Your task to perform on an android device: turn off sleep mode Image 0: 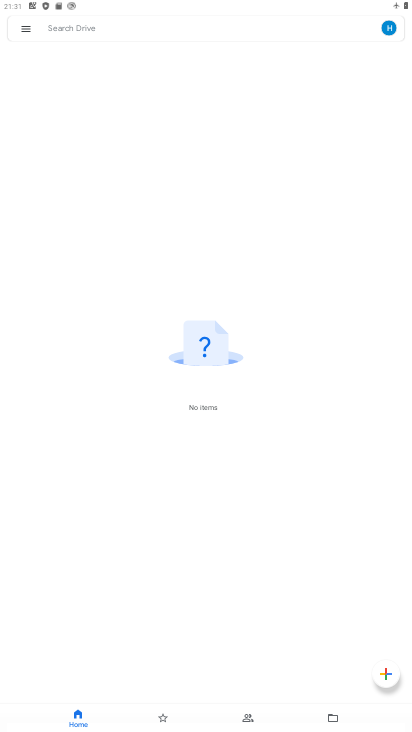
Step 0: press home button
Your task to perform on an android device: turn off sleep mode Image 1: 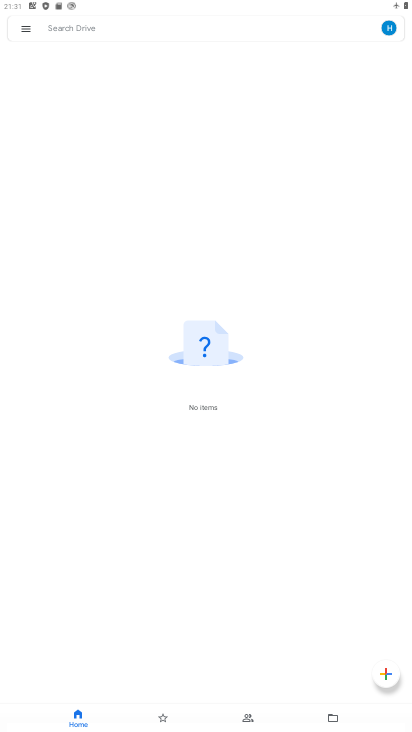
Step 1: press home button
Your task to perform on an android device: turn off sleep mode Image 2: 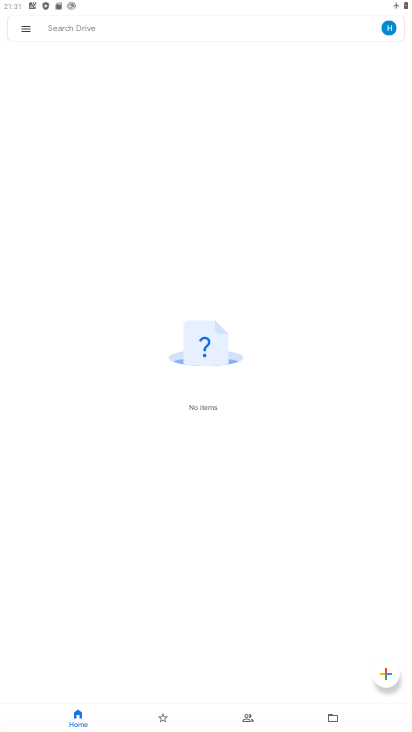
Step 2: drag from (230, 570) to (257, 3)
Your task to perform on an android device: turn off sleep mode Image 3: 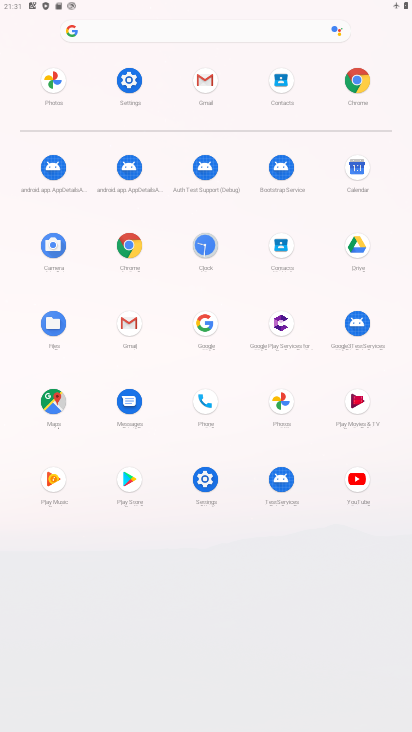
Step 3: click (201, 484)
Your task to perform on an android device: turn off sleep mode Image 4: 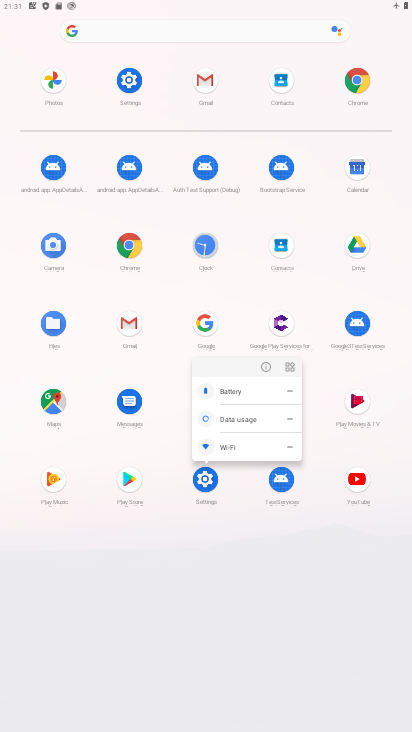
Step 4: click (269, 368)
Your task to perform on an android device: turn off sleep mode Image 5: 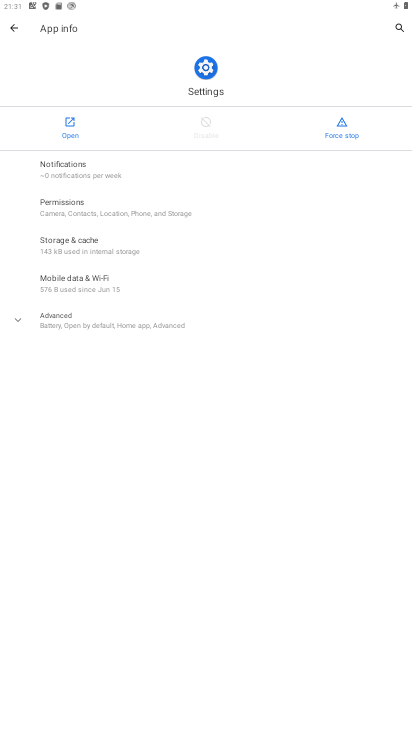
Step 5: click (67, 130)
Your task to perform on an android device: turn off sleep mode Image 6: 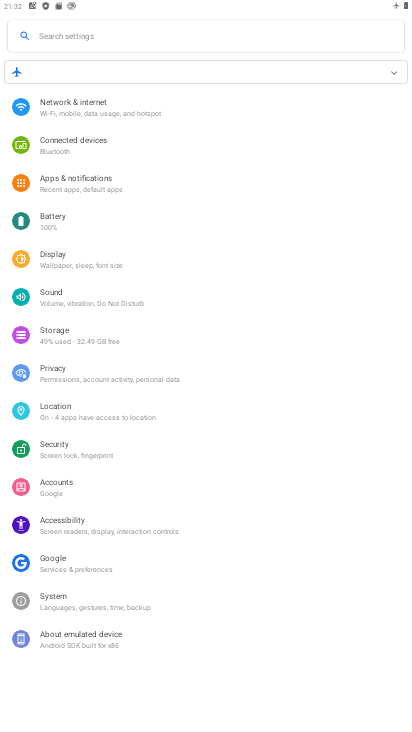
Step 6: drag from (173, 205) to (142, 601)
Your task to perform on an android device: turn off sleep mode Image 7: 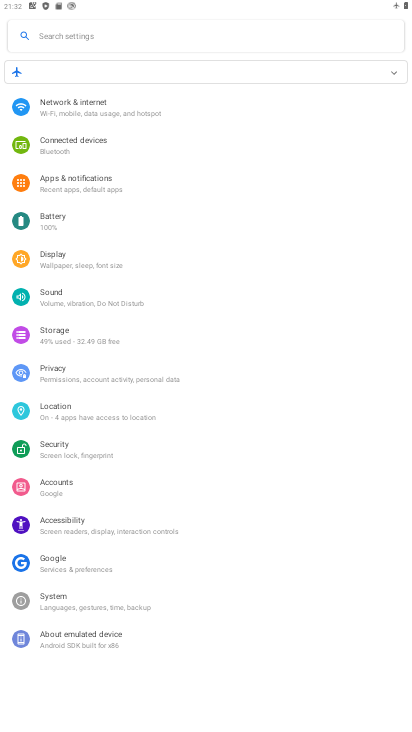
Step 7: click (93, 268)
Your task to perform on an android device: turn off sleep mode Image 8: 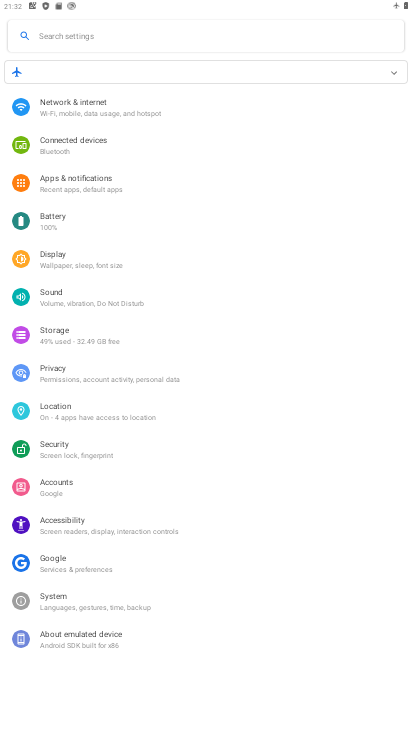
Step 8: click (93, 268)
Your task to perform on an android device: turn off sleep mode Image 9: 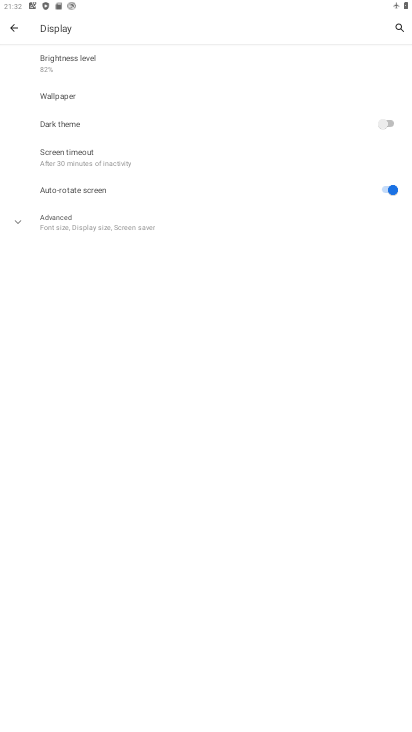
Step 9: click (185, 161)
Your task to perform on an android device: turn off sleep mode Image 10: 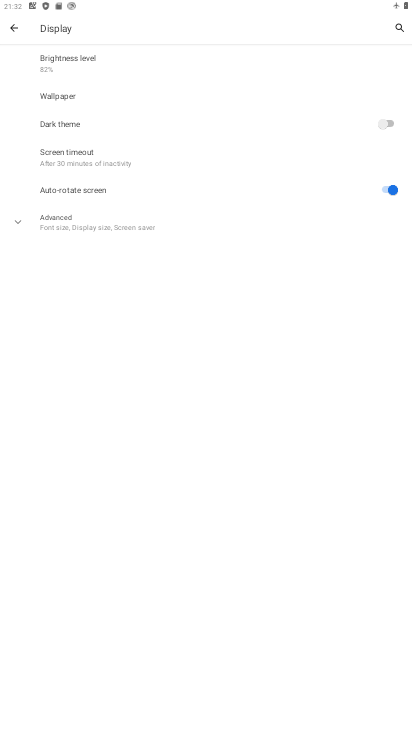
Step 10: click (185, 161)
Your task to perform on an android device: turn off sleep mode Image 11: 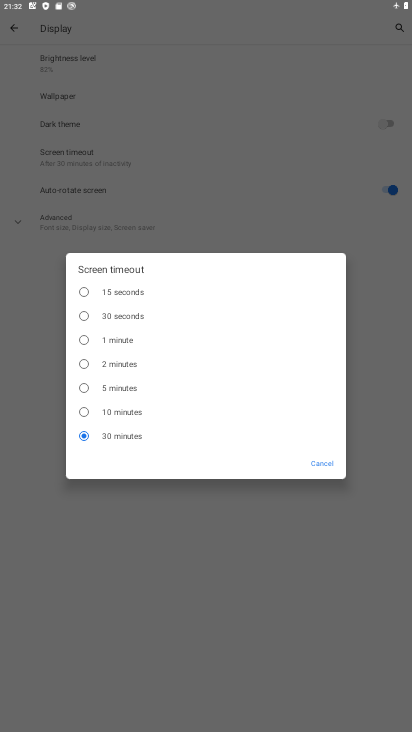
Step 11: click (97, 284)
Your task to perform on an android device: turn off sleep mode Image 12: 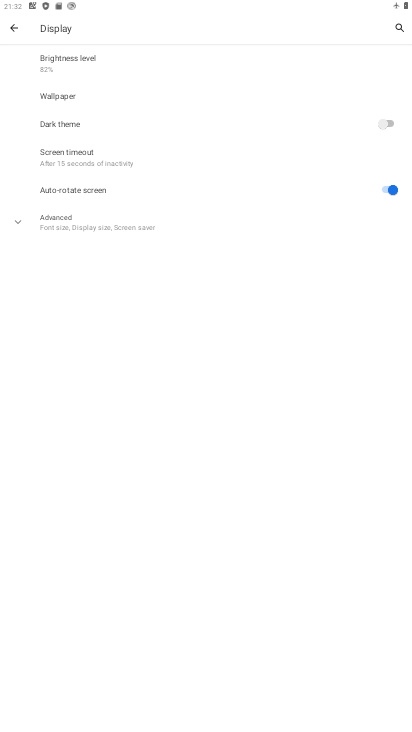
Step 12: task complete